Your task to perform on an android device: open app "Adobe Acrobat Reader" Image 0: 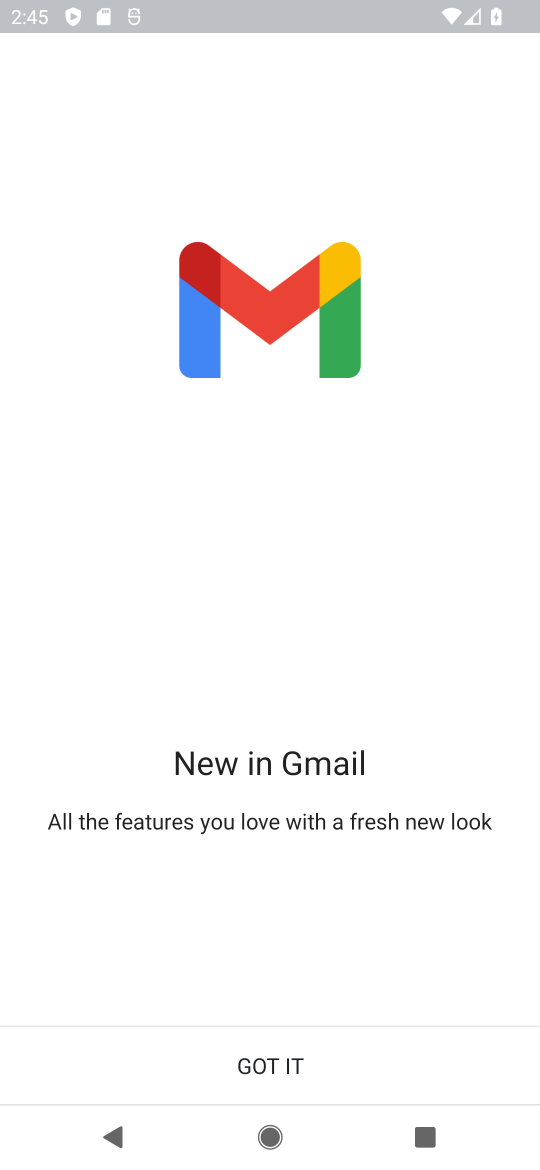
Step 0: press home button
Your task to perform on an android device: open app "Adobe Acrobat Reader" Image 1: 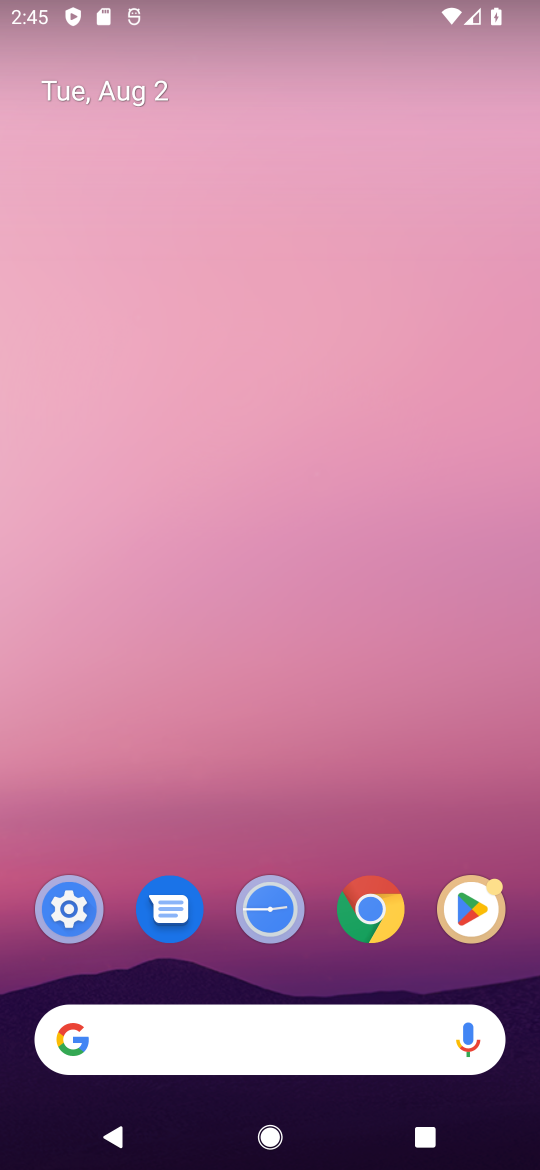
Step 1: click (462, 914)
Your task to perform on an android device: open app "Adobe Acrobat Reader" Image 2: 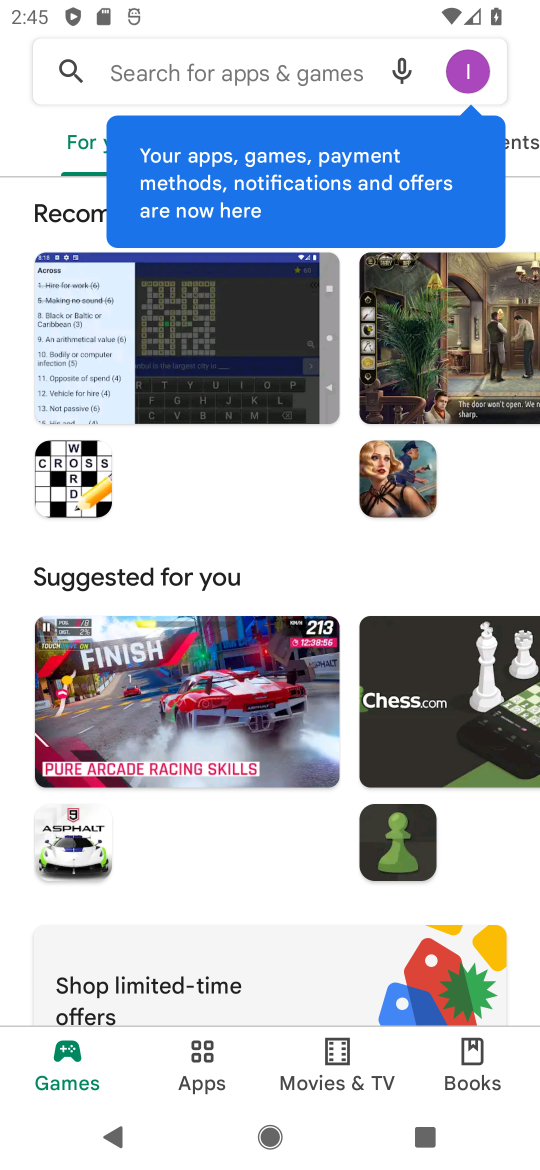
Step 2: click (162, 73)
Your task to perform on an android device: open app "Adobe Acrobat Reader" Image 3: 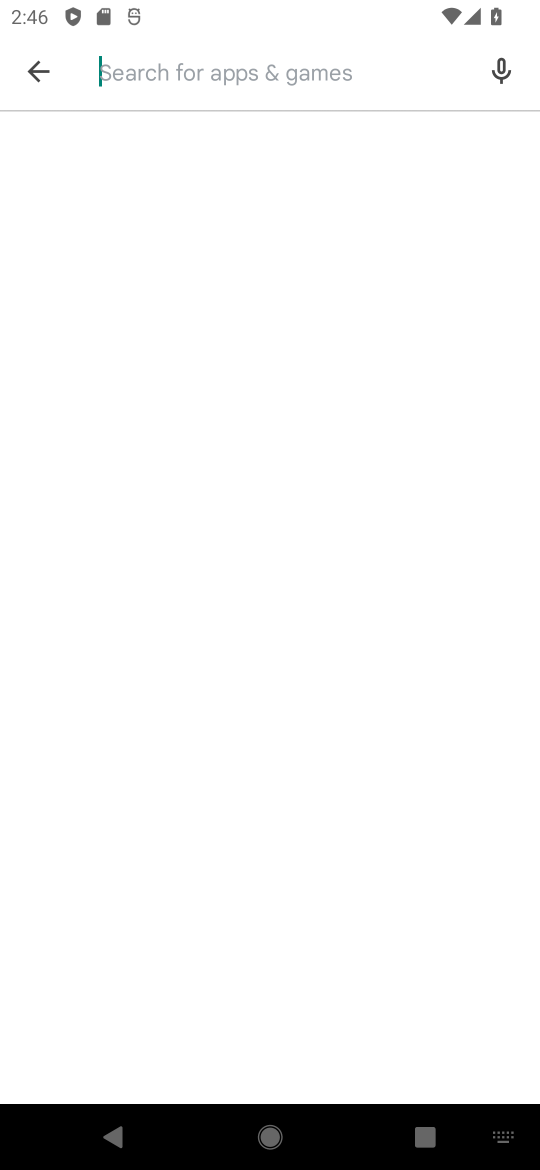
Step 3: click (145, 77)
Your task to perform on an android device: open app "Adobe Acrobat Reader" Image 4: 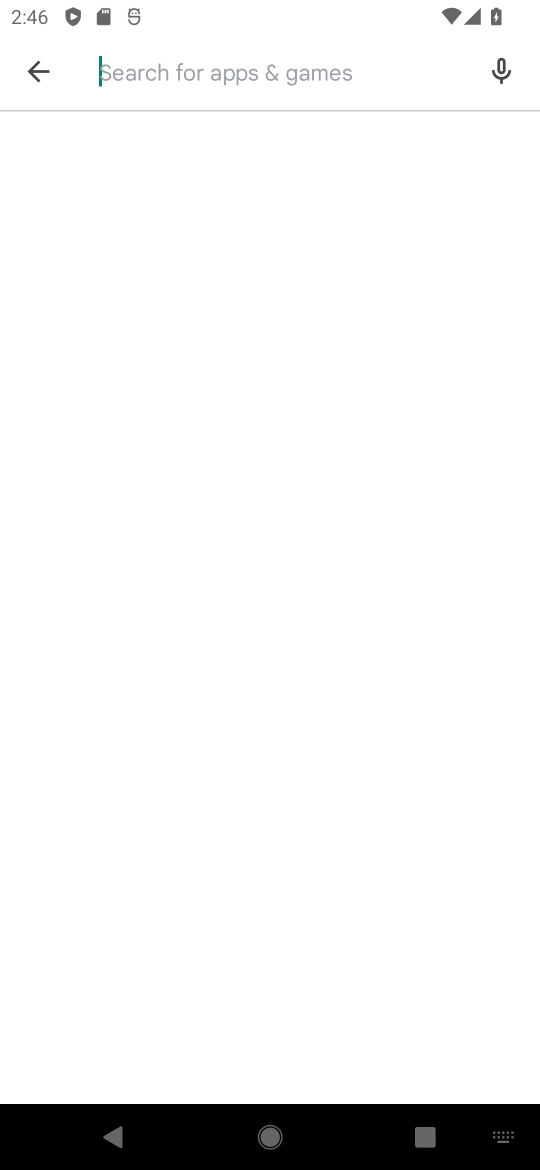
Step 4: type "adobe acrobat reader"
Your task to perform on an android device: open app "Adobe Acrobat Reader" Image 5: 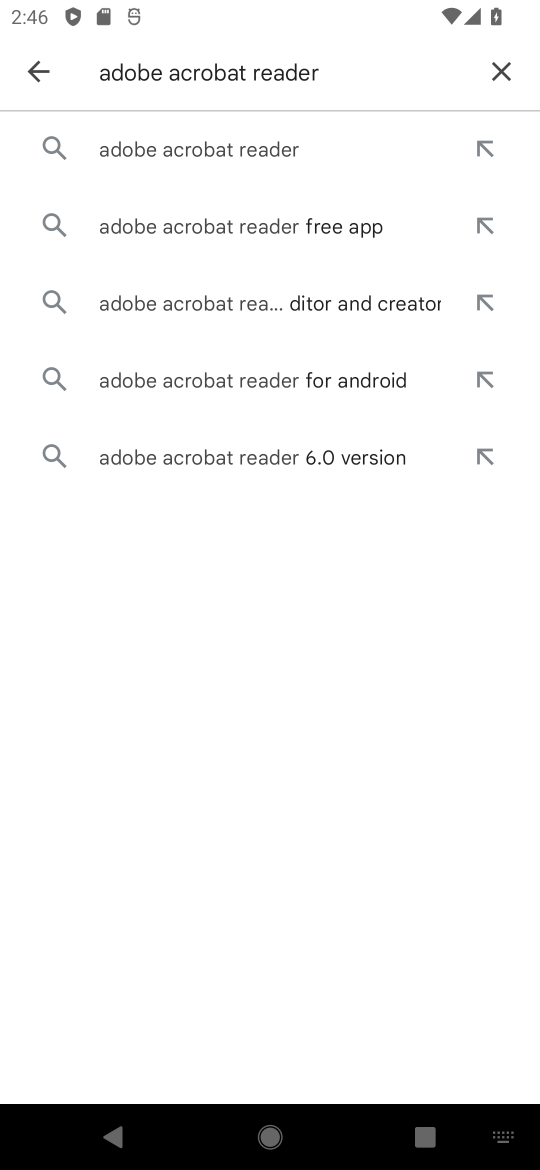
Step 5: click (146, 149)
Your task to perform on an android device: open app "Adobe Acrobat Reader" Image 6: 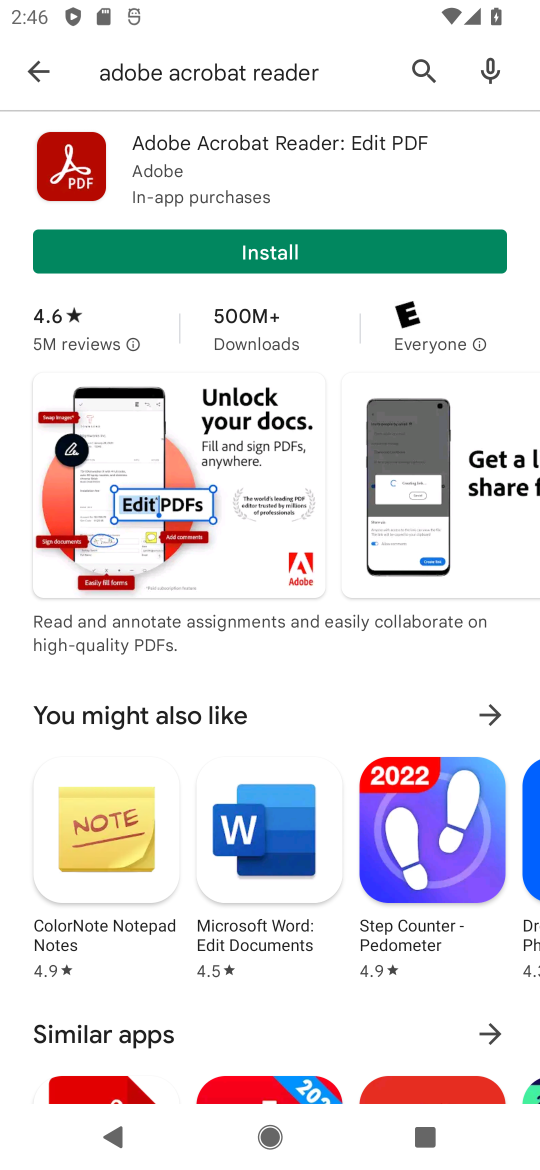
Step 6: task complete